Your task to perform on an android device: uninstall "Duolingo: language lessons" Image 0: 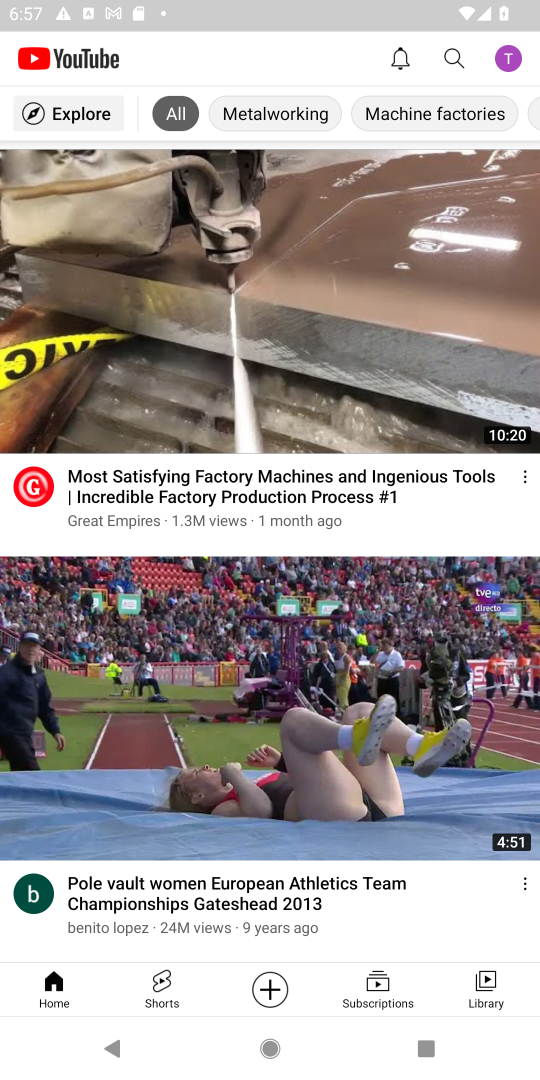
Step 0: press home button
Your task to perform on an android device: uninstall "Duolingo: language lessons" Image 1: 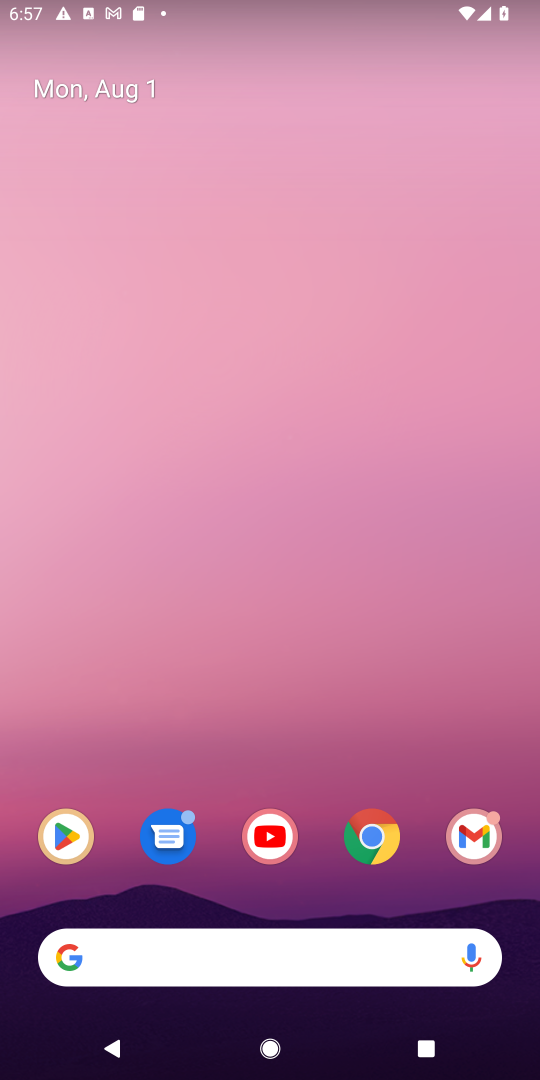
Step 1: click (60, 838)
Your task to perform on an android device: uninstall "Duolingo: language lessons" Image 2: 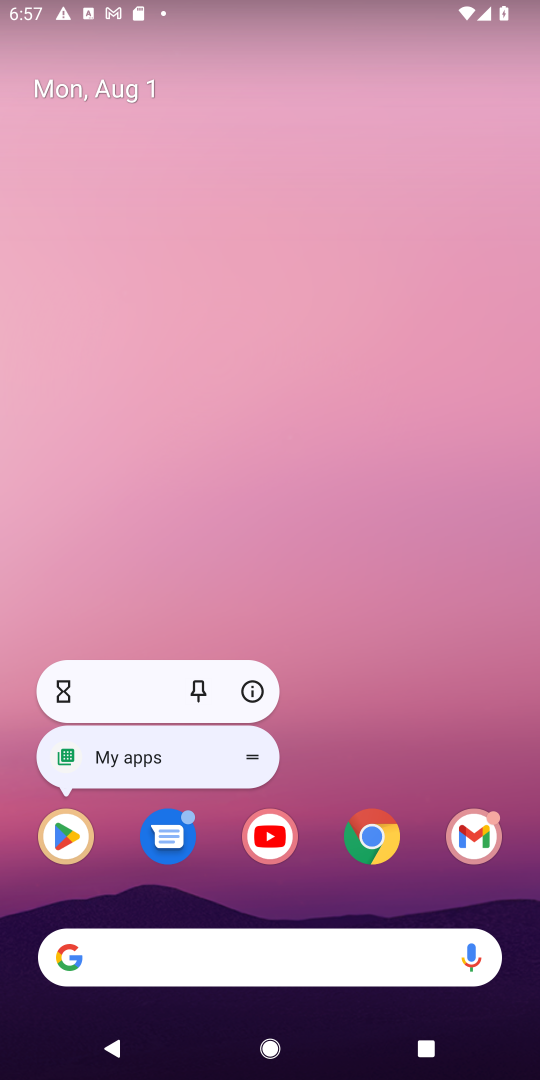
Step 2: click (61, 842)
Your task to perform on an android device: uninstall "Duolingo: language lessons" Image 3: 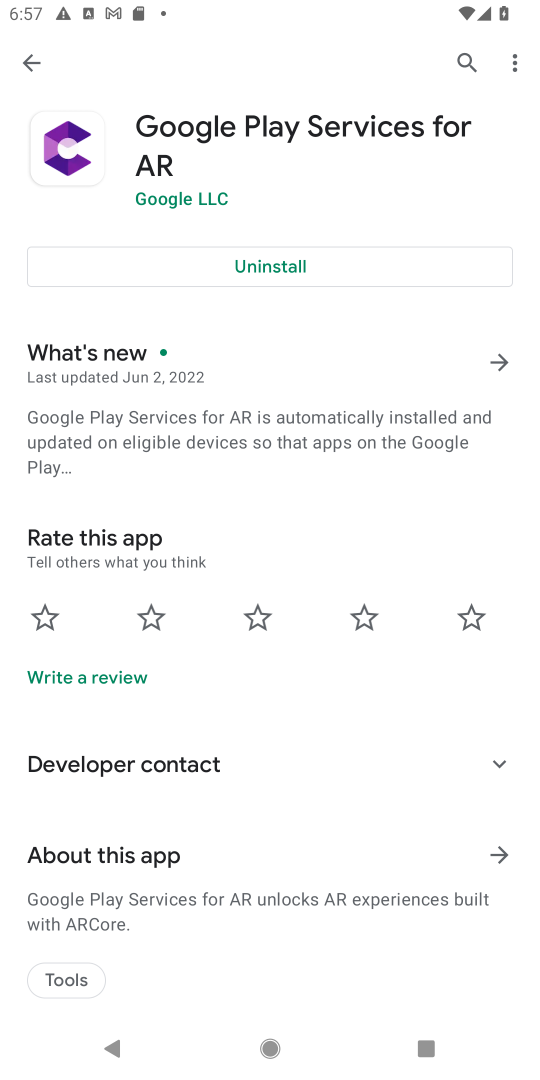
Step 3: click (462, 56)
Your task to perform on an android device: uninstall "Duolingo: language lessons" Image 4: 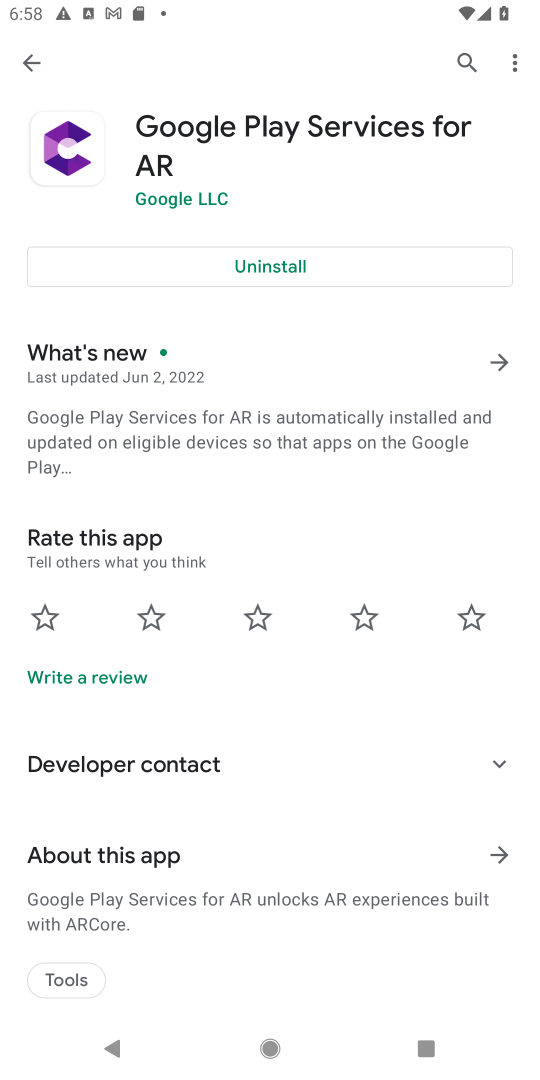
Step 4: click (454, 56)
Your task to perform on an android device: uninstall "Duolingo: language lessons" Image 5: 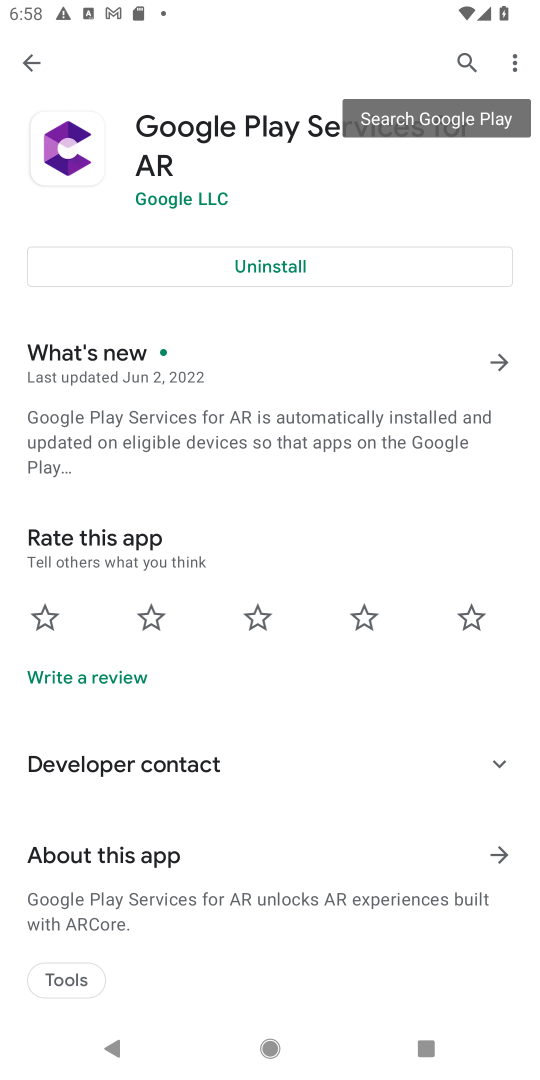
Step 5: click (469, 65)
Your task to perform on an android device: uninstall "Duolingo: language lessons" Image 6: 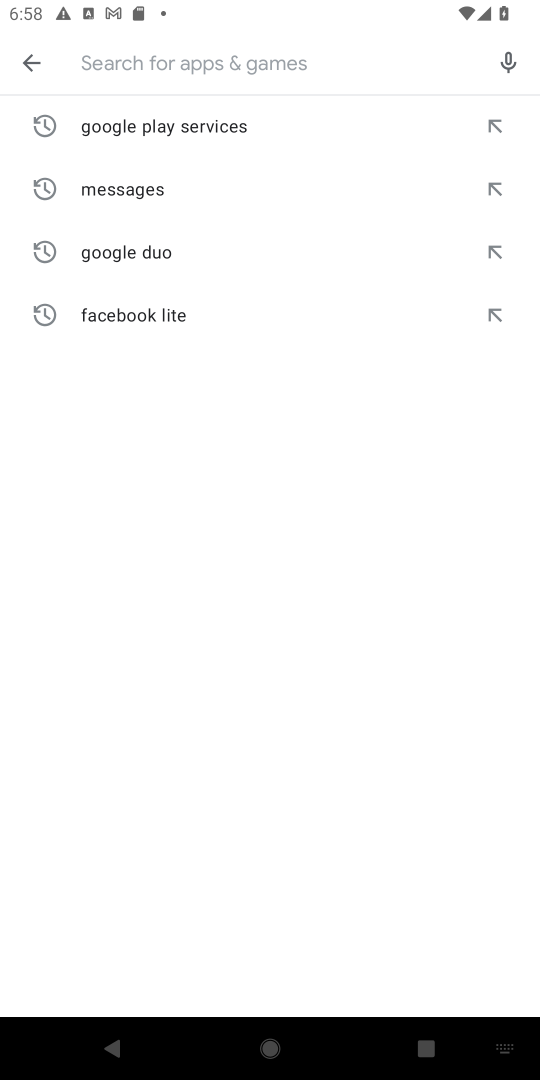
Step 6: type "Duolingo: language lessons"
Your task to perform on an android device: uninstall "Duolingo: language lessons" Image 7: 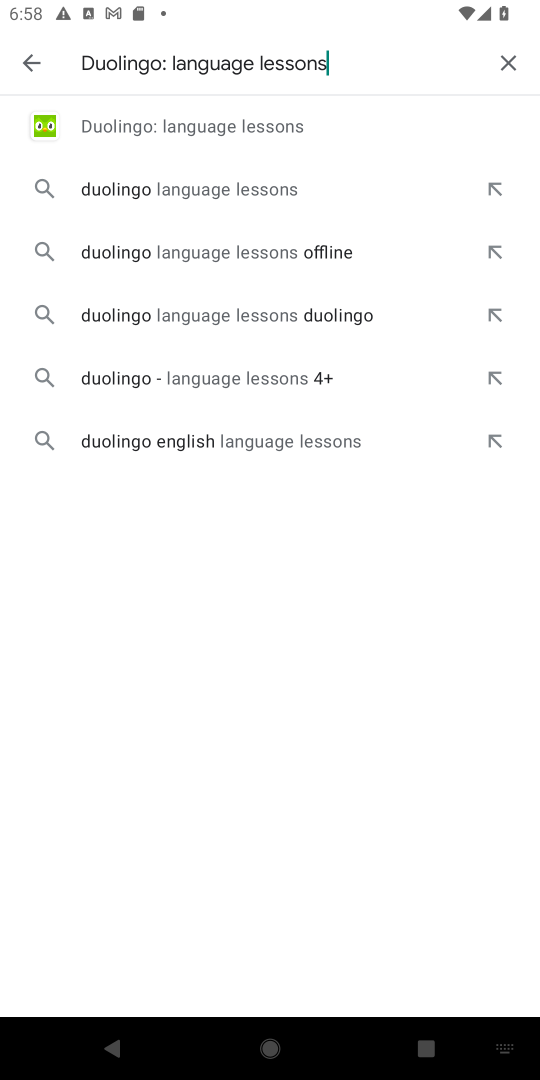
Step 7: click (209, 121)
Your task to perform on an android device: uninstall "Duolingo: language lessons" Image 8: 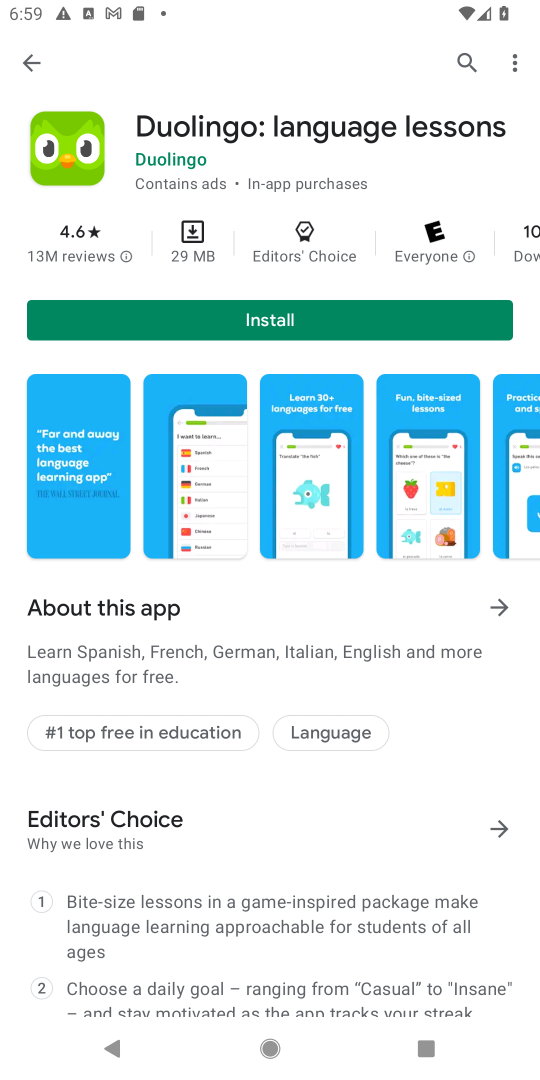
Step 8: task complete